Your task to perform on an android device: Go to Google maps Image 0: 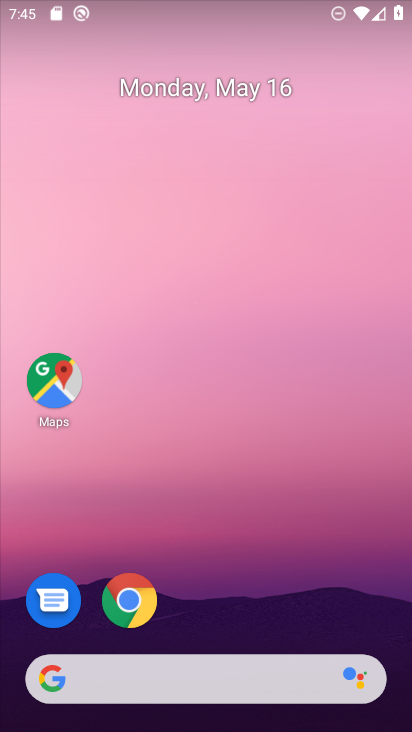
Step 0: click (50, 391)
Your task to perform on an android device: Go to Google maps Image 1: 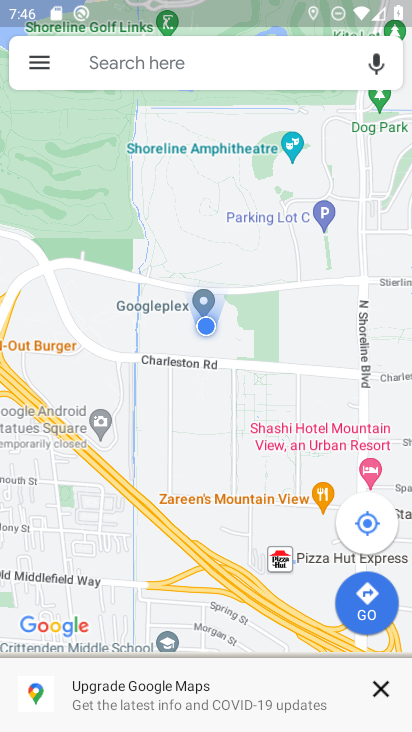
Step 1: task complete